Your task to perform on an android device: Clear the shopping cart on ebay. Add "usb-a to usb-b" to the cart on ebay, then select checkout. Image 0: 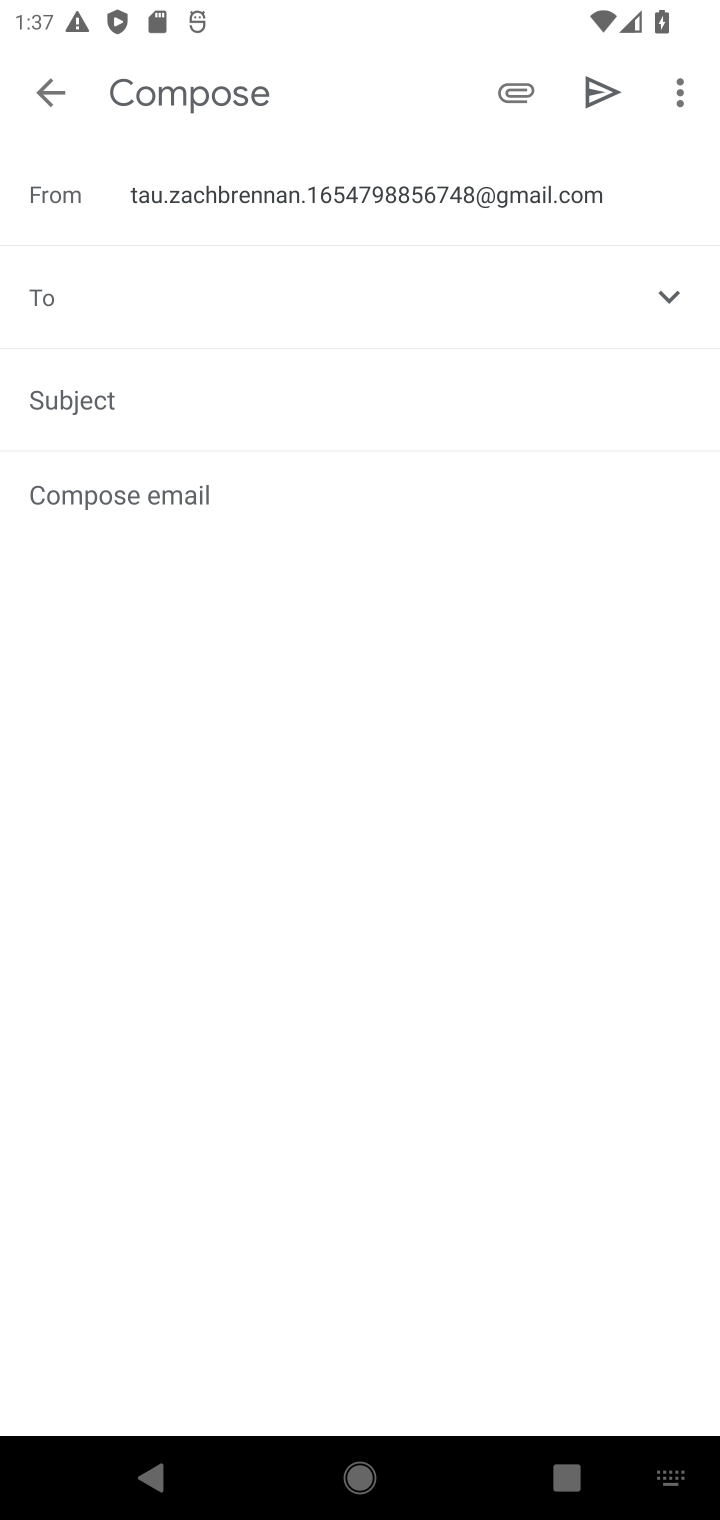
Step 0: press home button
Your task to perform on an android device: Clear the shopping cart on ebay. Add "usb-a to usb-b" to the cart on ebay, then select checkout. Image 1: 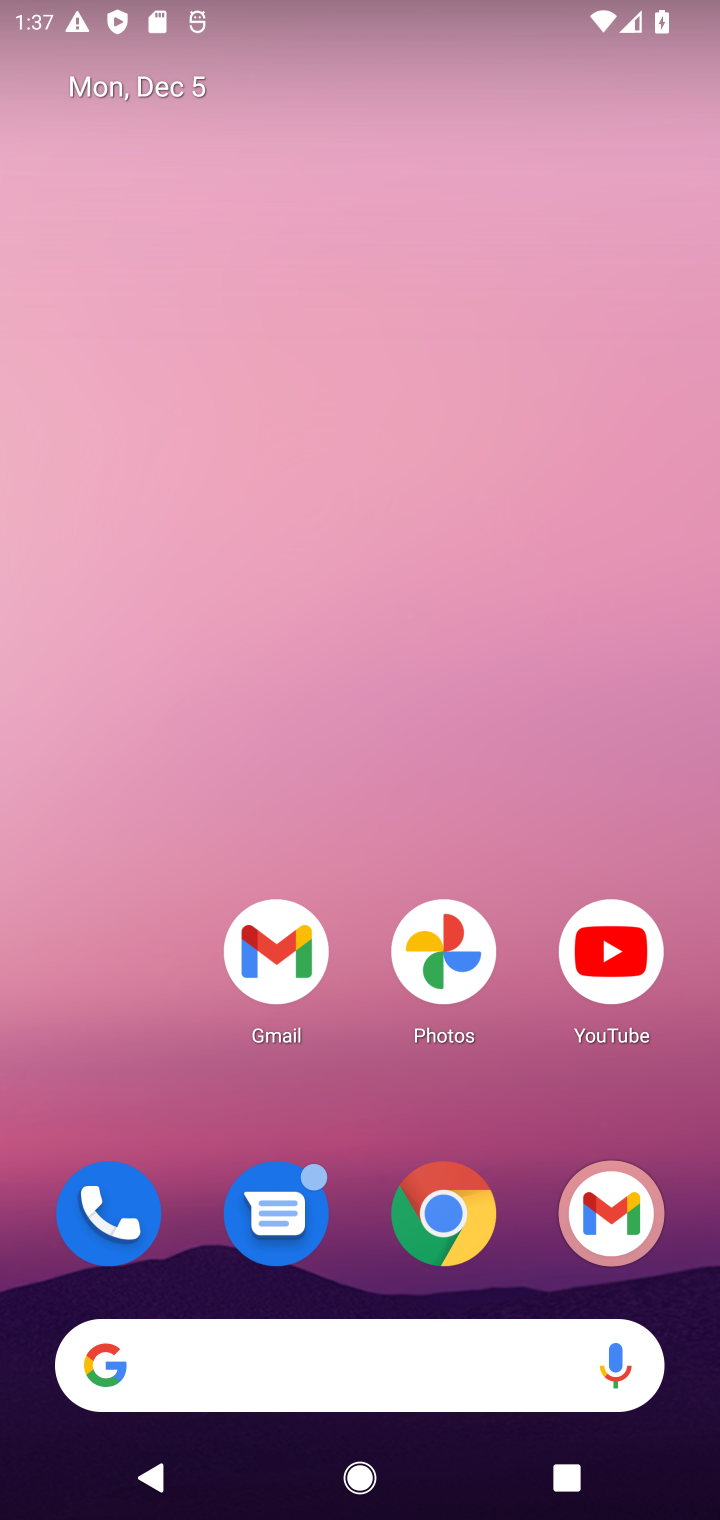
Step 1: click (450, 1211)
Your task to perform on an android device: Clear the shopping cart on ebay. Add "usb-a to usb-b" to the cart on ebay, then select checkout. Image 2: 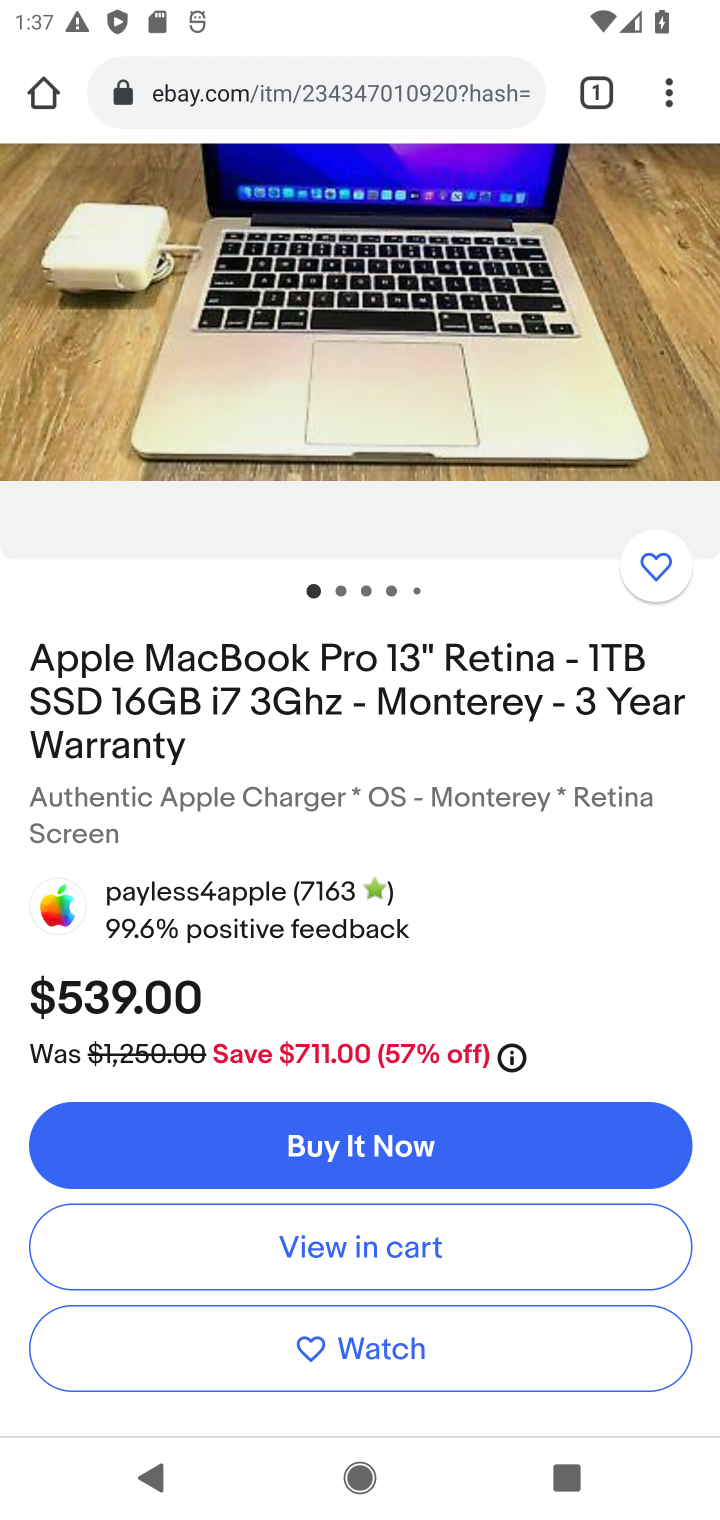
Step 2: drag from (683, 472) to (652, 1106)
Your task to perform on an android device: Clear the shopping cart on ebay. Add "usb-a to usb-b" to the cart on ebay, then select checkout. Image 3: 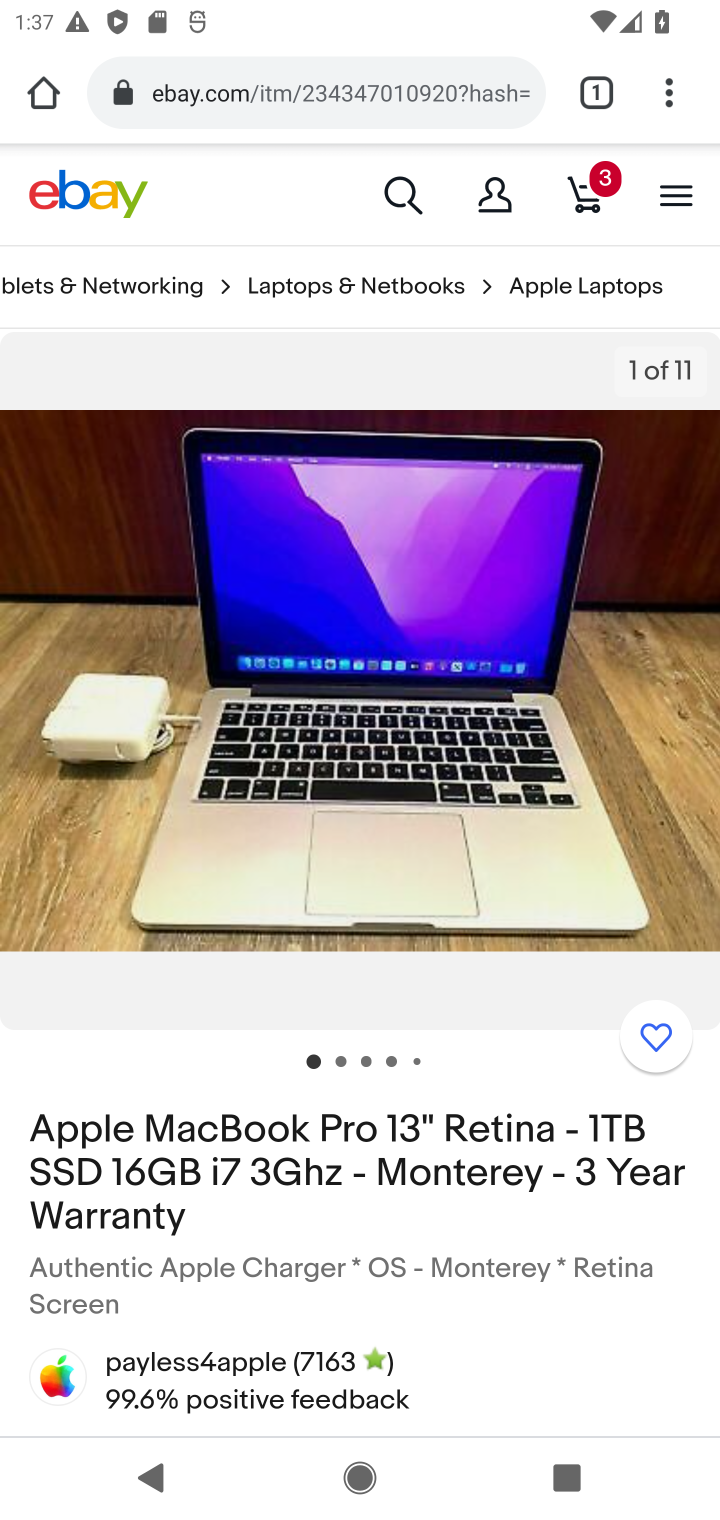
Step 3: click (582, 180)
Your task to perform on an android device: Clear the shopping cart on ebay. Add "usb-a to usb-b" to the cart on ebay, then select checkout. Image 4: 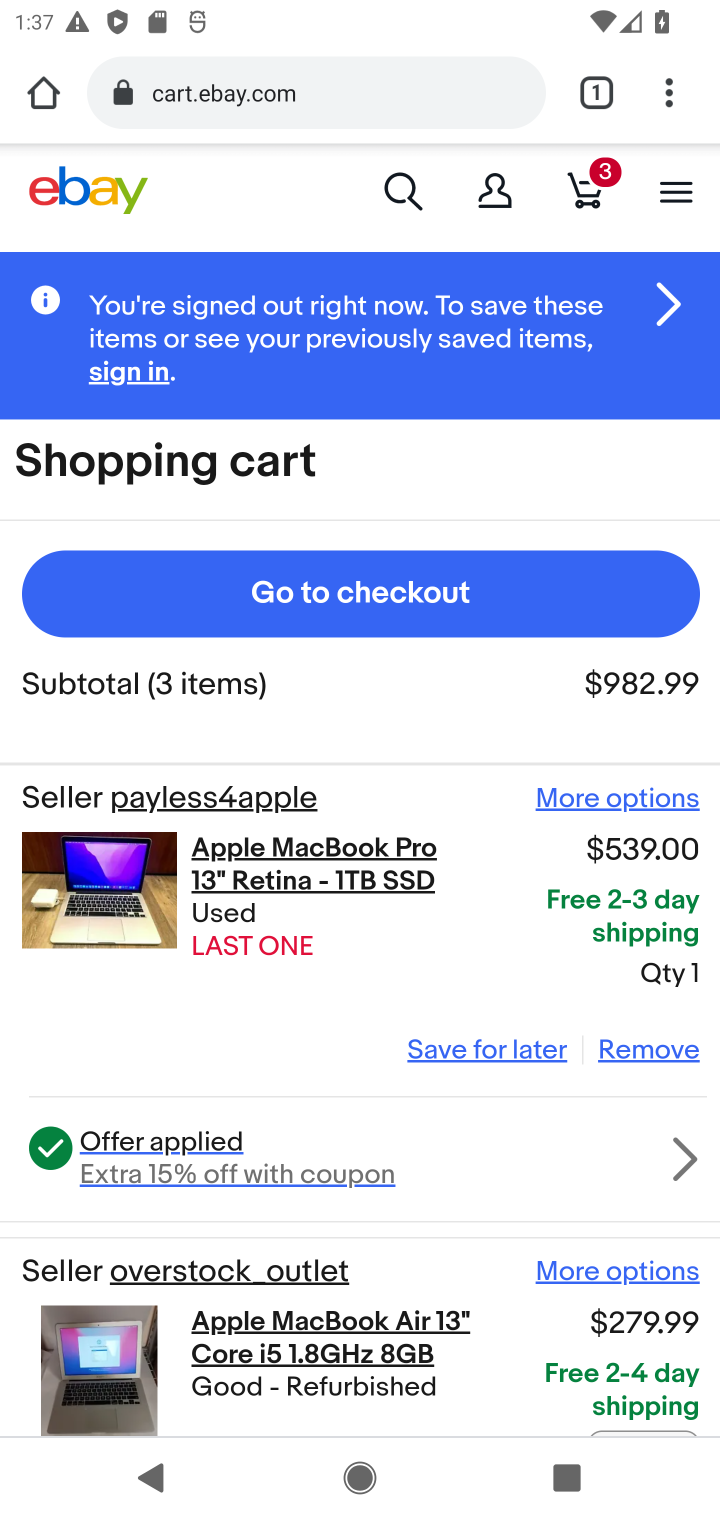
Step 4: click (637, 1053)
Your task to perform on an android device: Clear the shopping cart on ebay. Add "usb-a to usb-b" to the cart on ebay, then select checkout. Image 5: 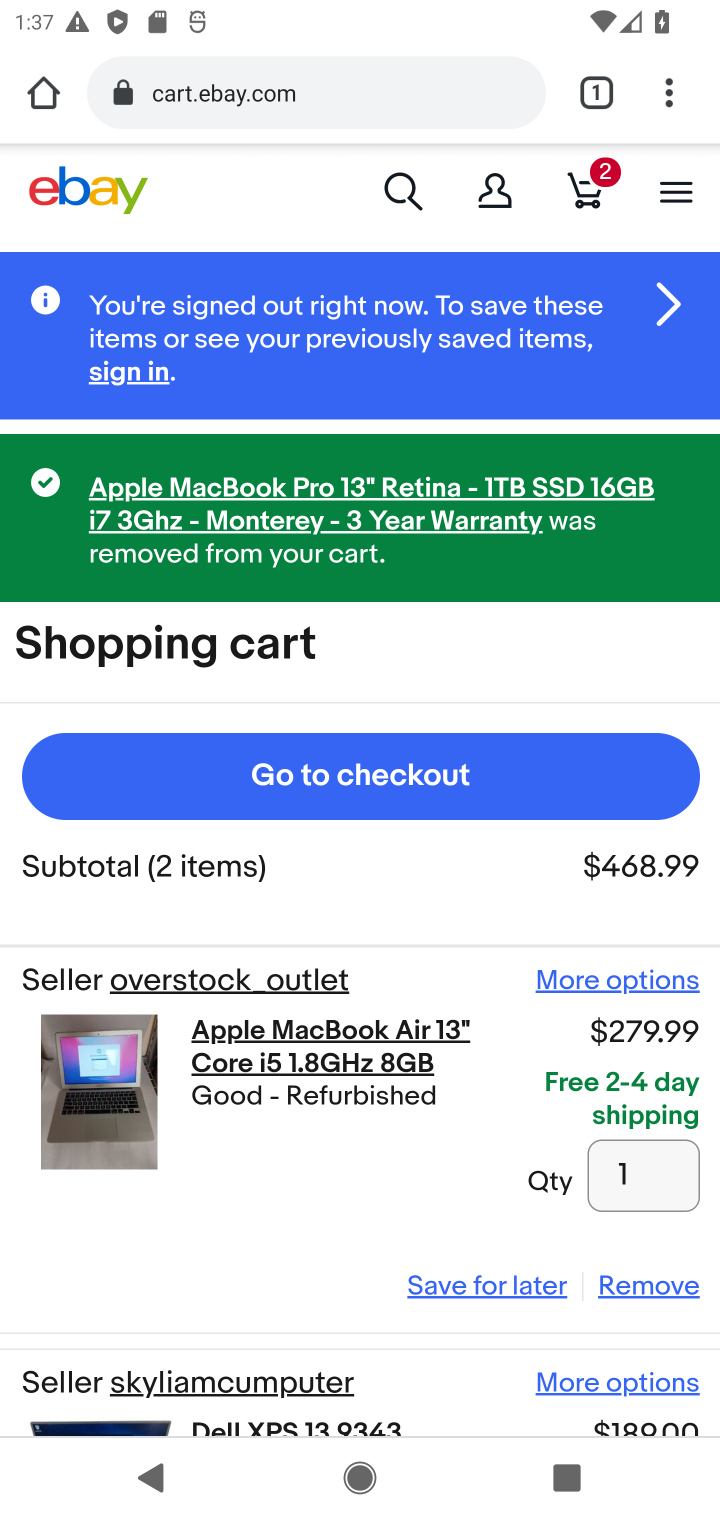
Step 5: click (624, 1293)
Your task to perform on an android device: Clear the shopping cart on ebay. Add "usb-a to usb-b" to the cart on ebay, then select checkout. Image 6: 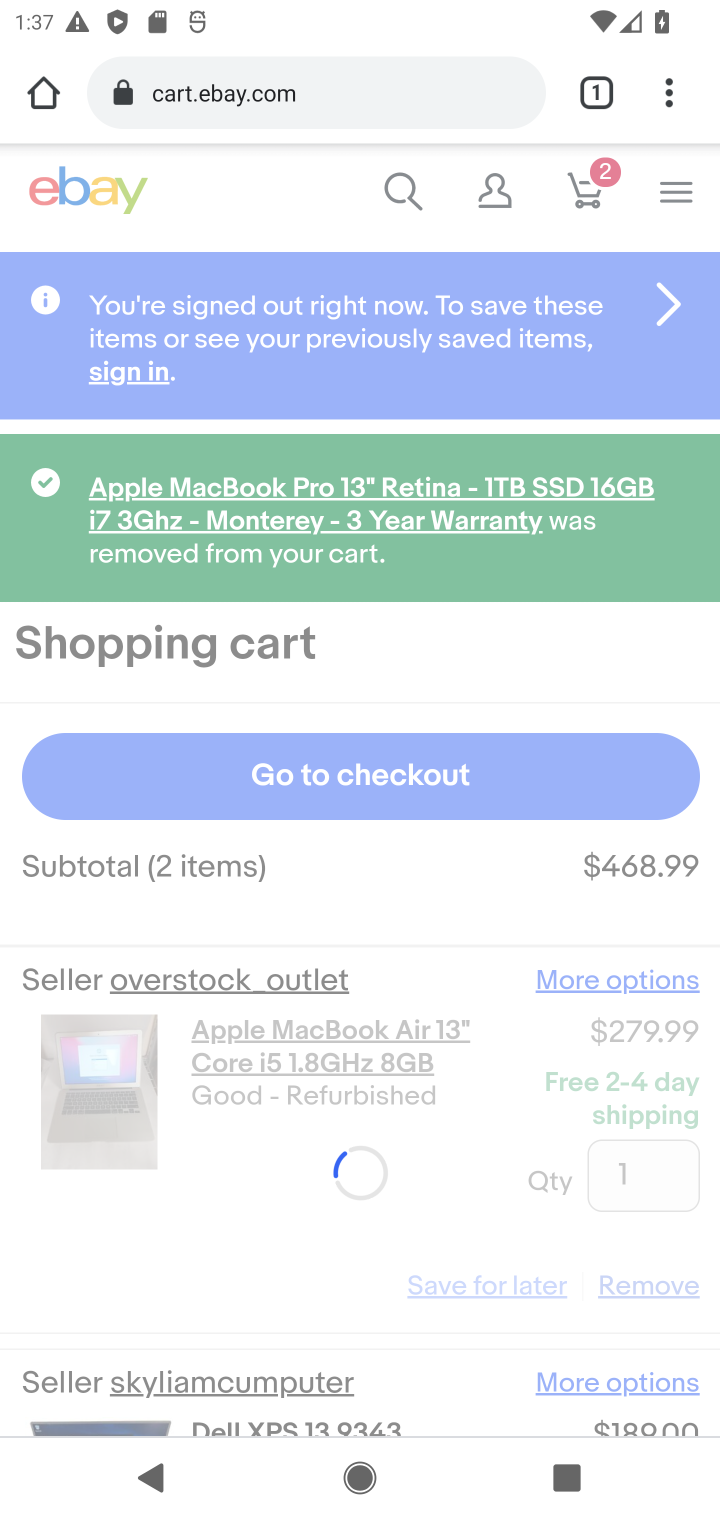
Step 6: drag from (449, 1194) to (459, 1004)
Your task to perform on an android device: Clear the shopping cart on ebay. Add "usb-a to usb-b" to the cart on ebay, then select checkout. Image 7: 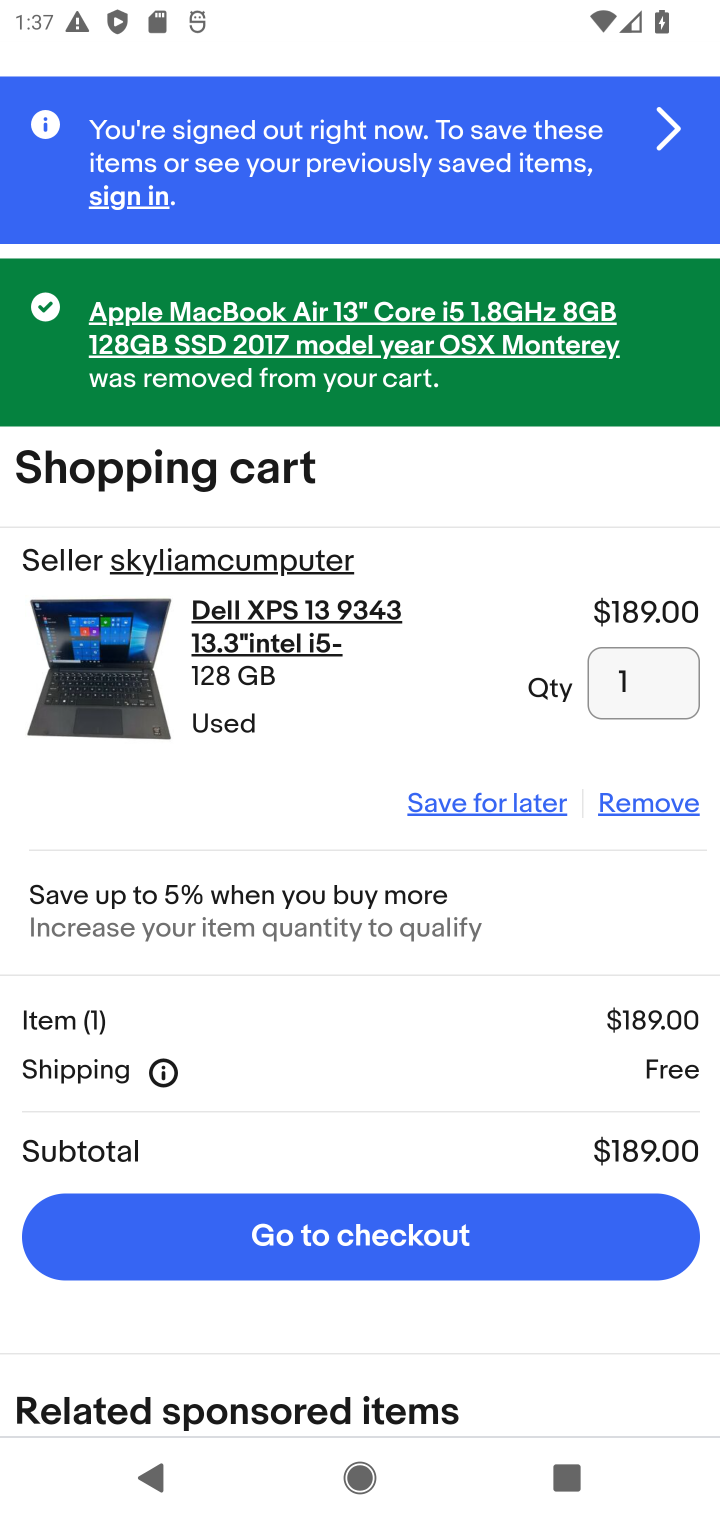
Step 7: click (624, 808)
Your task to perform on an android device: Clear the shopping cart on ebay. Add "usb-a to usb-b" to the cart on ebay, then select checkout. Image 8: 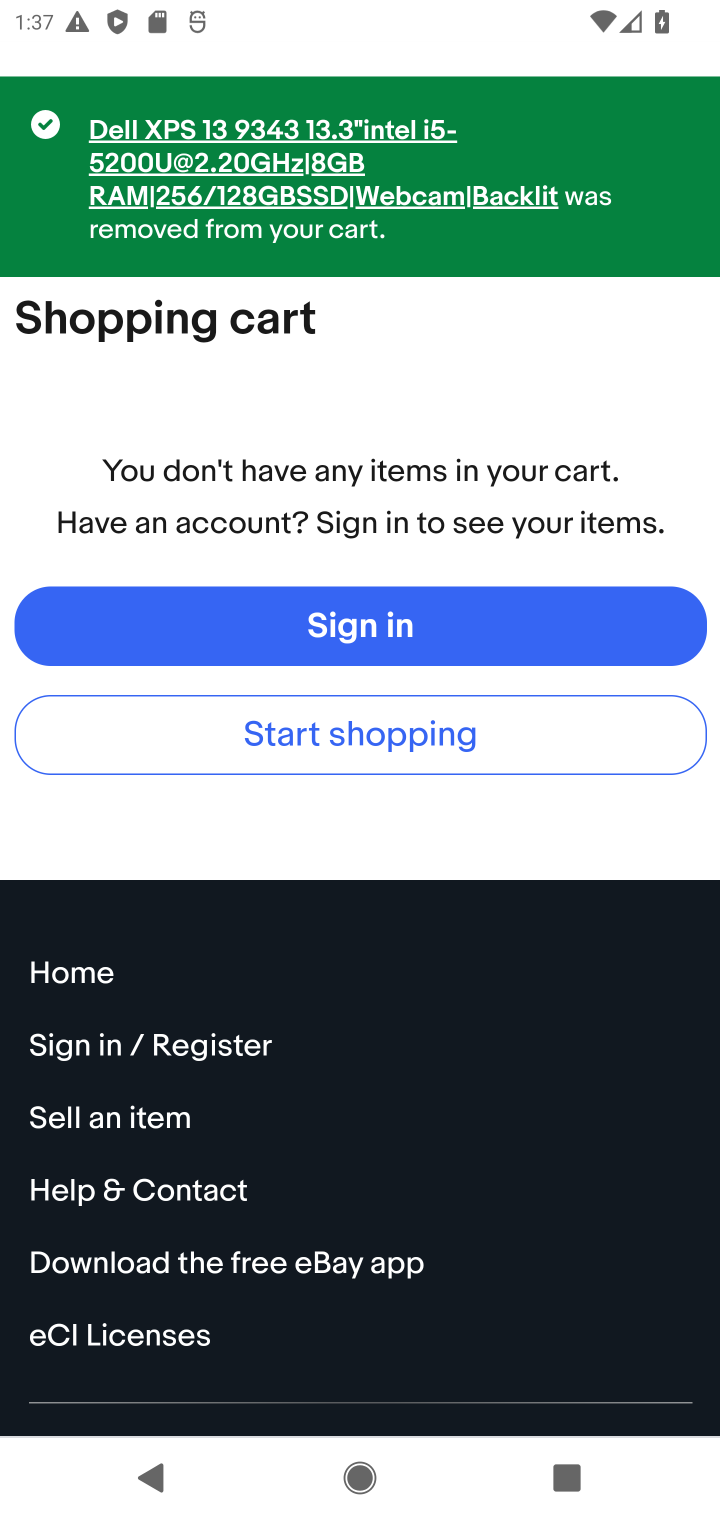
Step 8: drag from (604, 387) to (599, 639)
Your task to perform on an android device: Clear the shopping cart on ebay. Add "usb-a to usb-b" to the cart on ebay, then select checkout. Image 9: 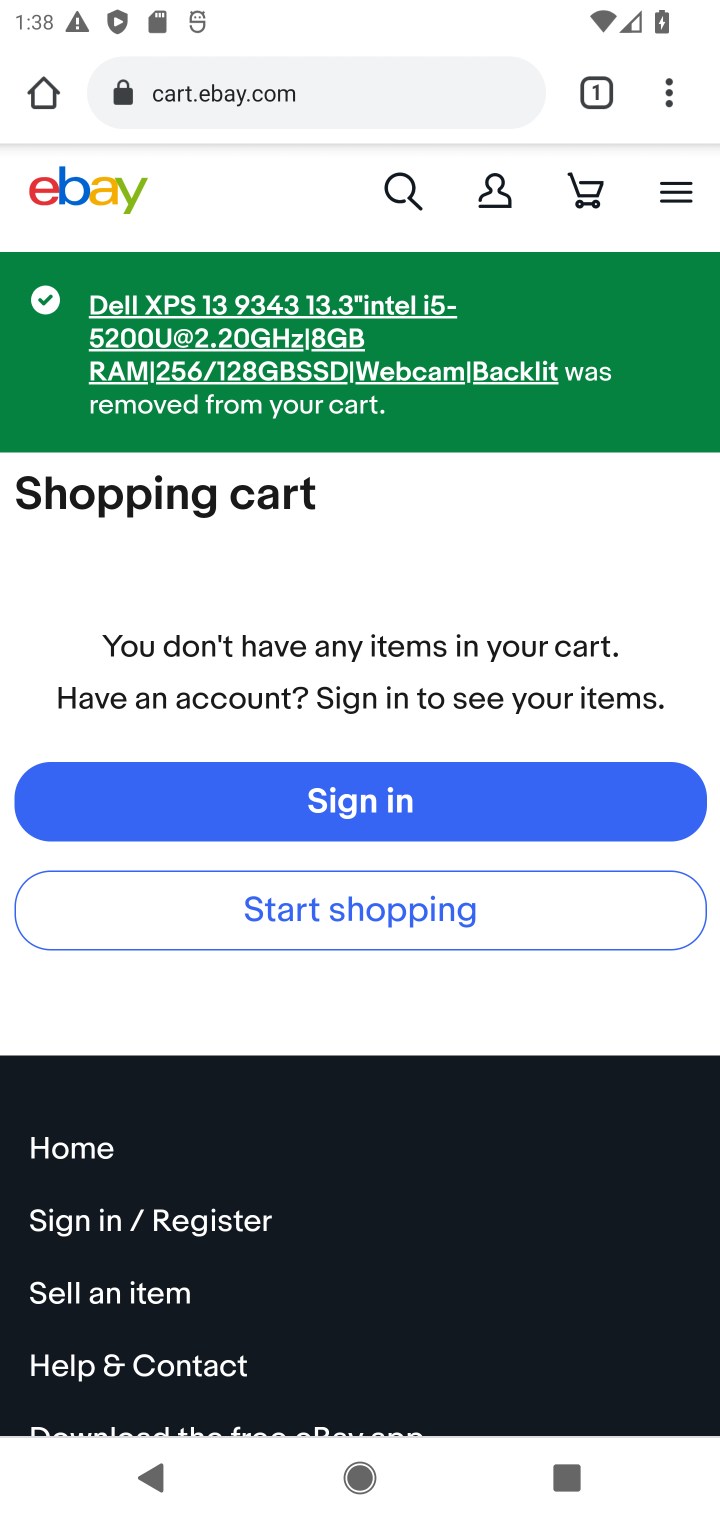
Step 9: click (407, 193)
Your task to perform on an android device: Clear the shopping cart on ebay. Add "usb-a to usb-b" to the cart on ebay, then select checkout. Image 10: 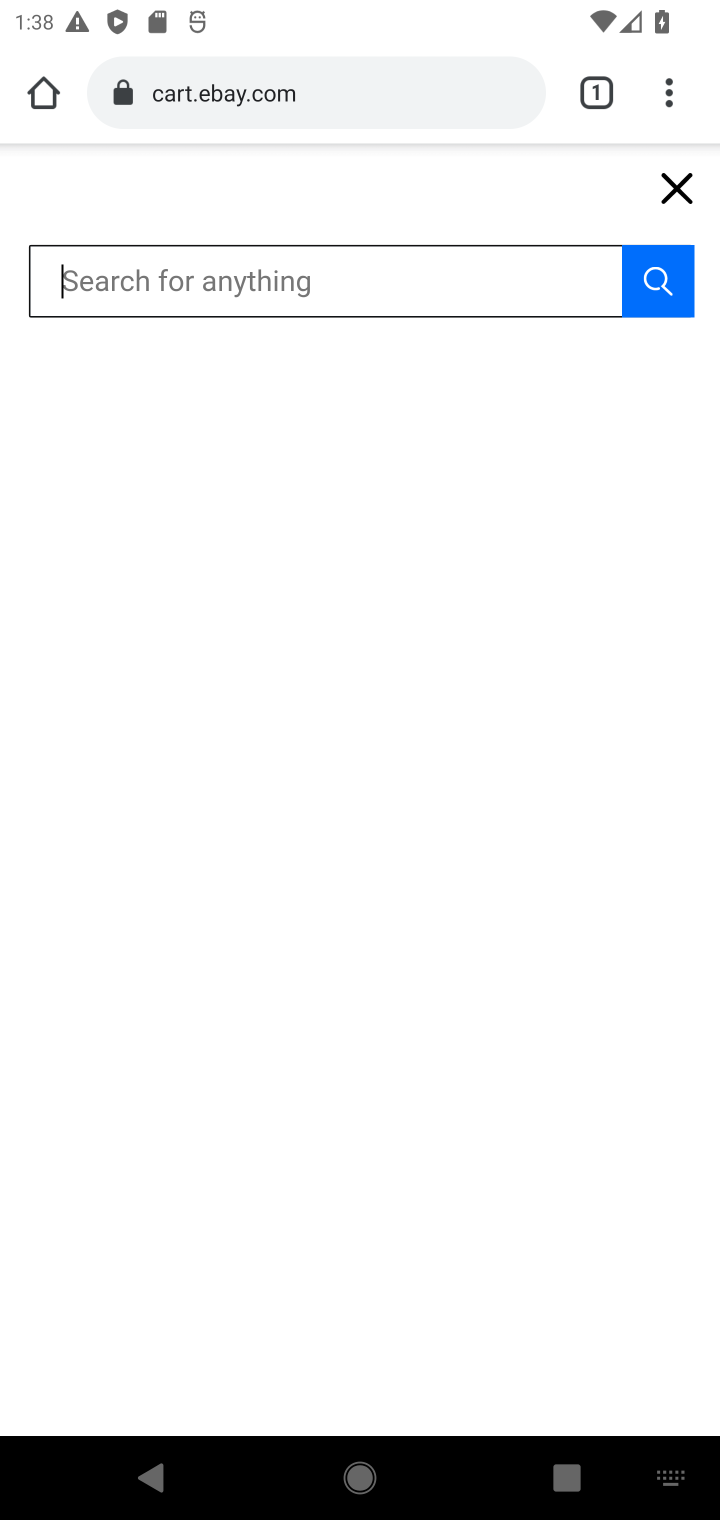
Step 10: type "usb-a to usb-b"
Your task to perform on an android device: Clear the shopping cart on ebay. Add "usb-a to usb-b" to the cart on ebay, then select checkout. Image 11: 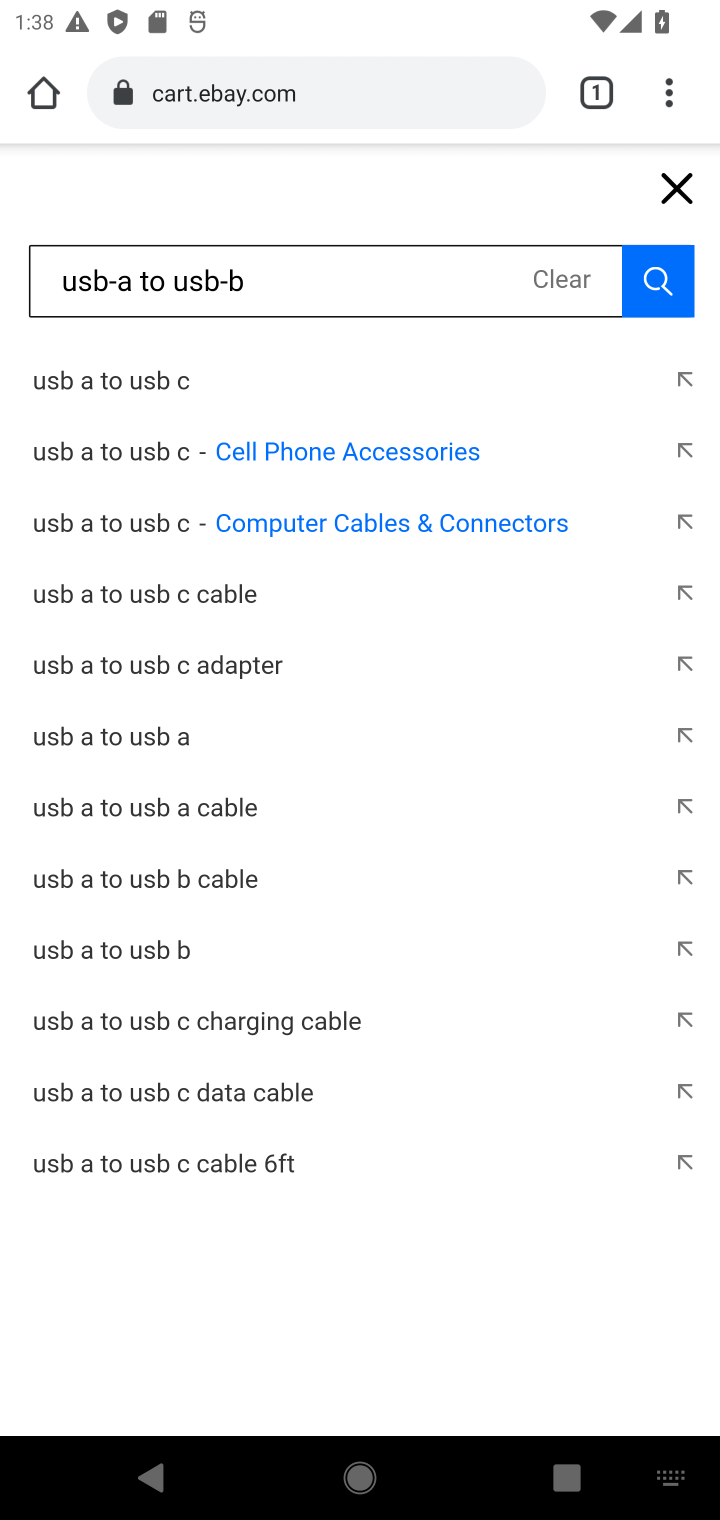
Step 11: click (658, 285)
Your task to perform on an android device: Clear the shopping cart on ebay. Add "usb-a to usb-b" to the cart on ebay, then select checkout. Image 12: 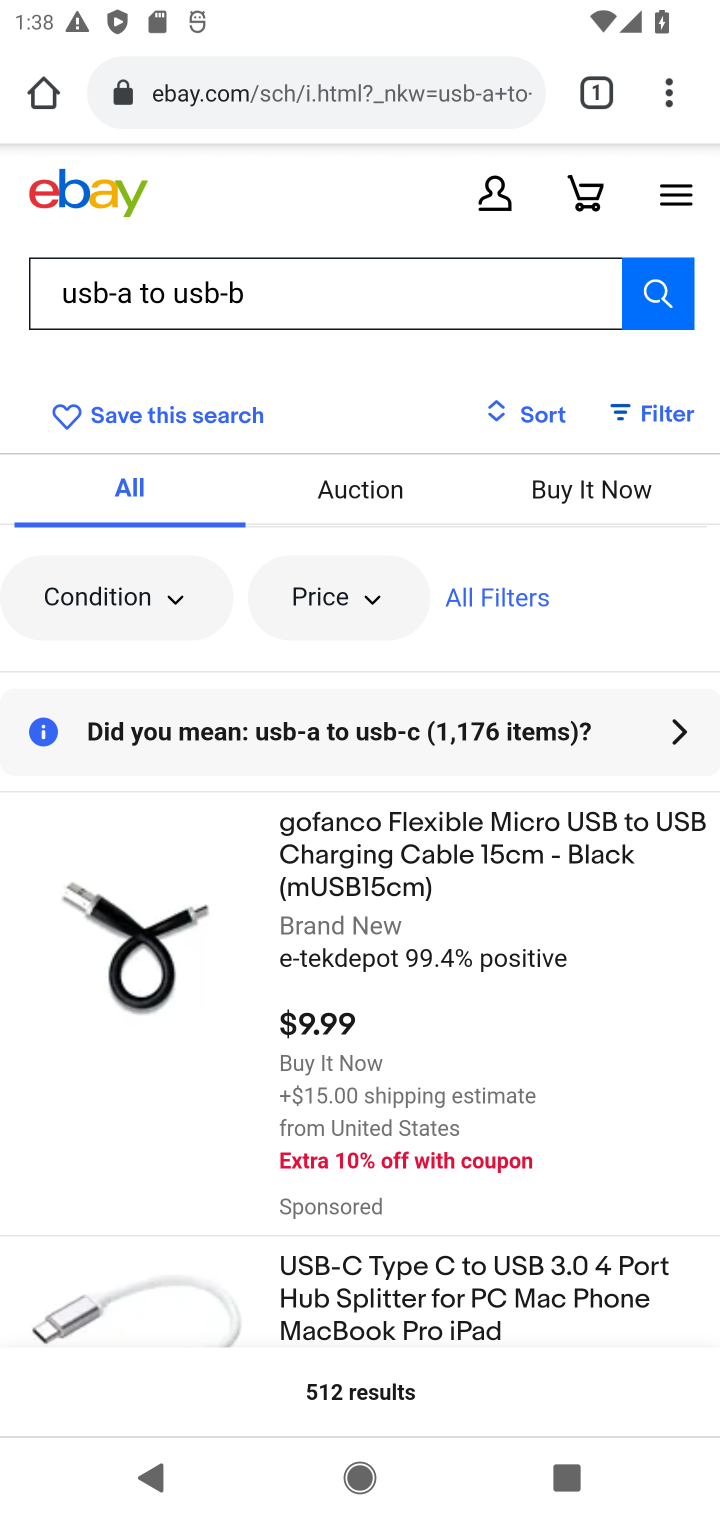
Step 12: drag from (413, 970) to (419, 683)
Your task to perform on an android device: Clear the shopping cart on ebay. Add "usb-a to usb-b" to the cart on ebay, then select checkout. Image 13: 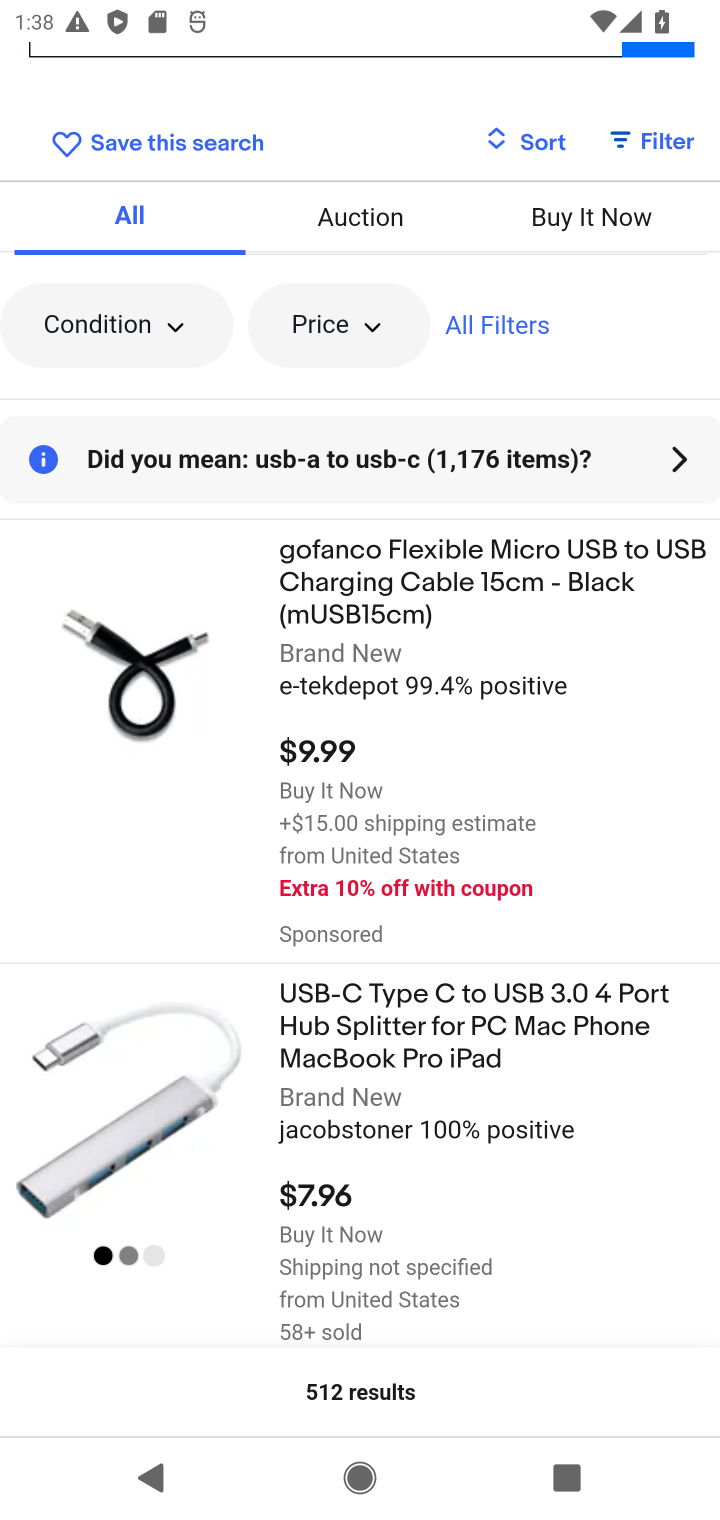
Step 13: drag from (439, 1043) to (475, 555)
Your task to perform on an android device: Clear the shopping cart on ebay. Add "usb-a to usb-b" to the cart on ebay, then select checkout. Image 14: 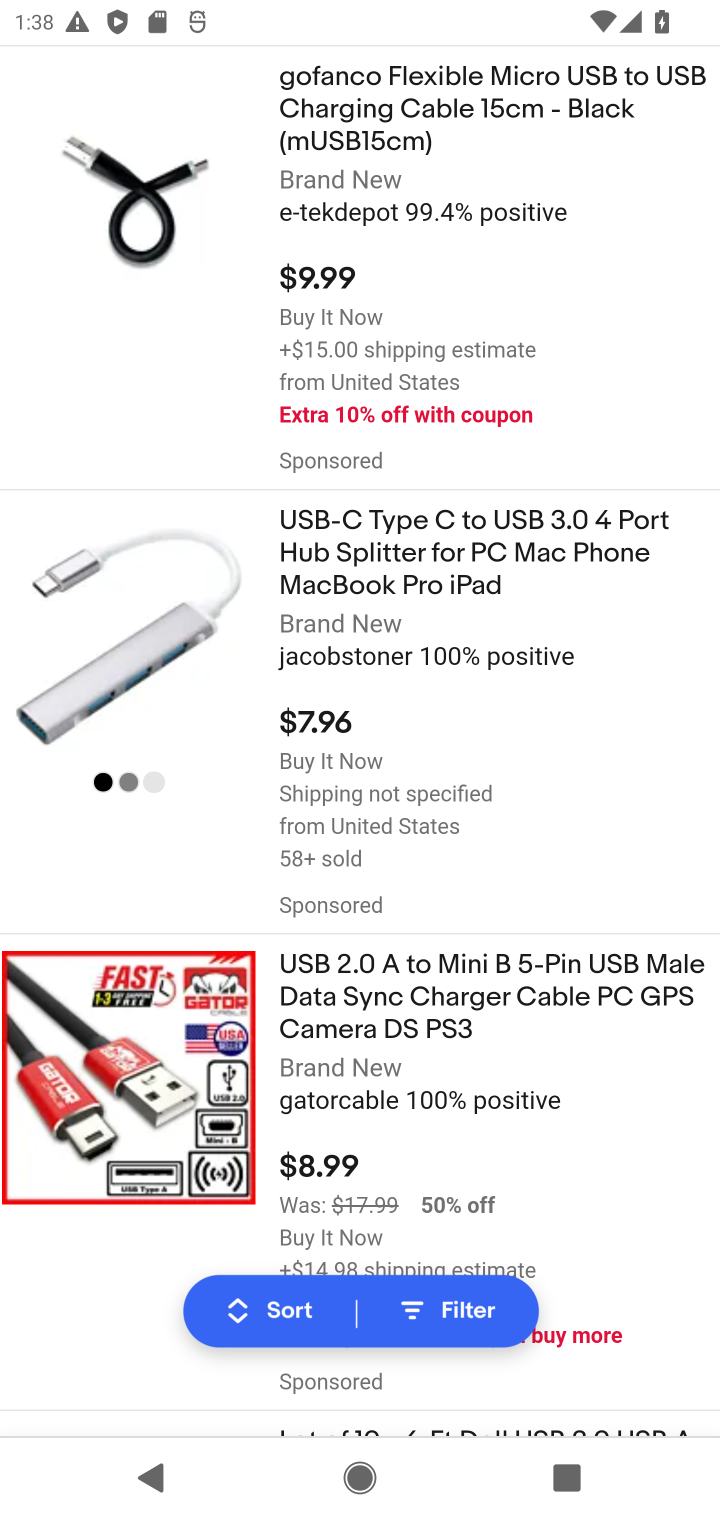
Step 14: drag from (438, 1126) to (439, 780)
Your task to perform on an android device: Clear the shopping cart on ebay. Add "usb-a to usb-b" to the cart on ebay, then select checkout. Image 15: 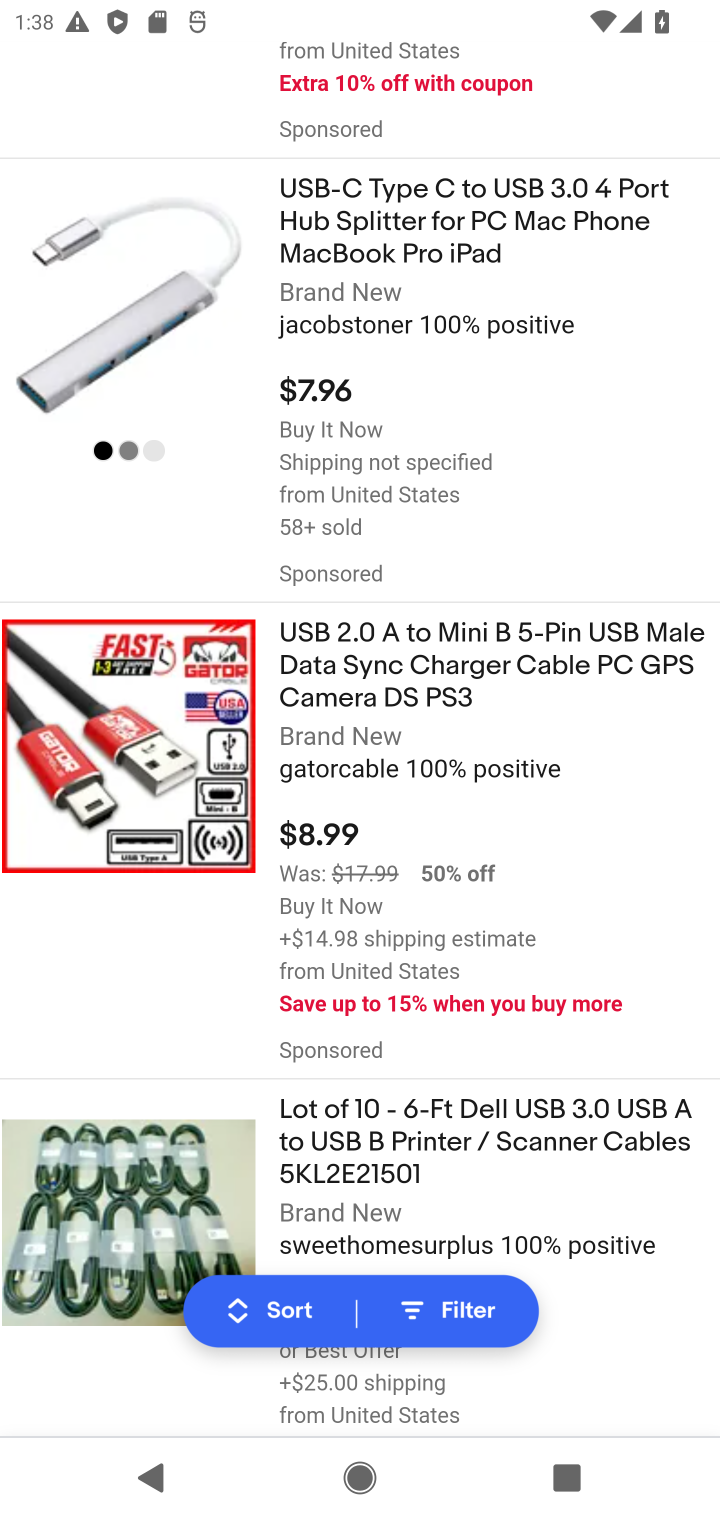
Step 15: click (498, 677)
Your task to perform on an android device: Clear the shopping cart on ebay. Add "usb-a to usb-b" to the cart on ebay, then select checkout. Image 16: 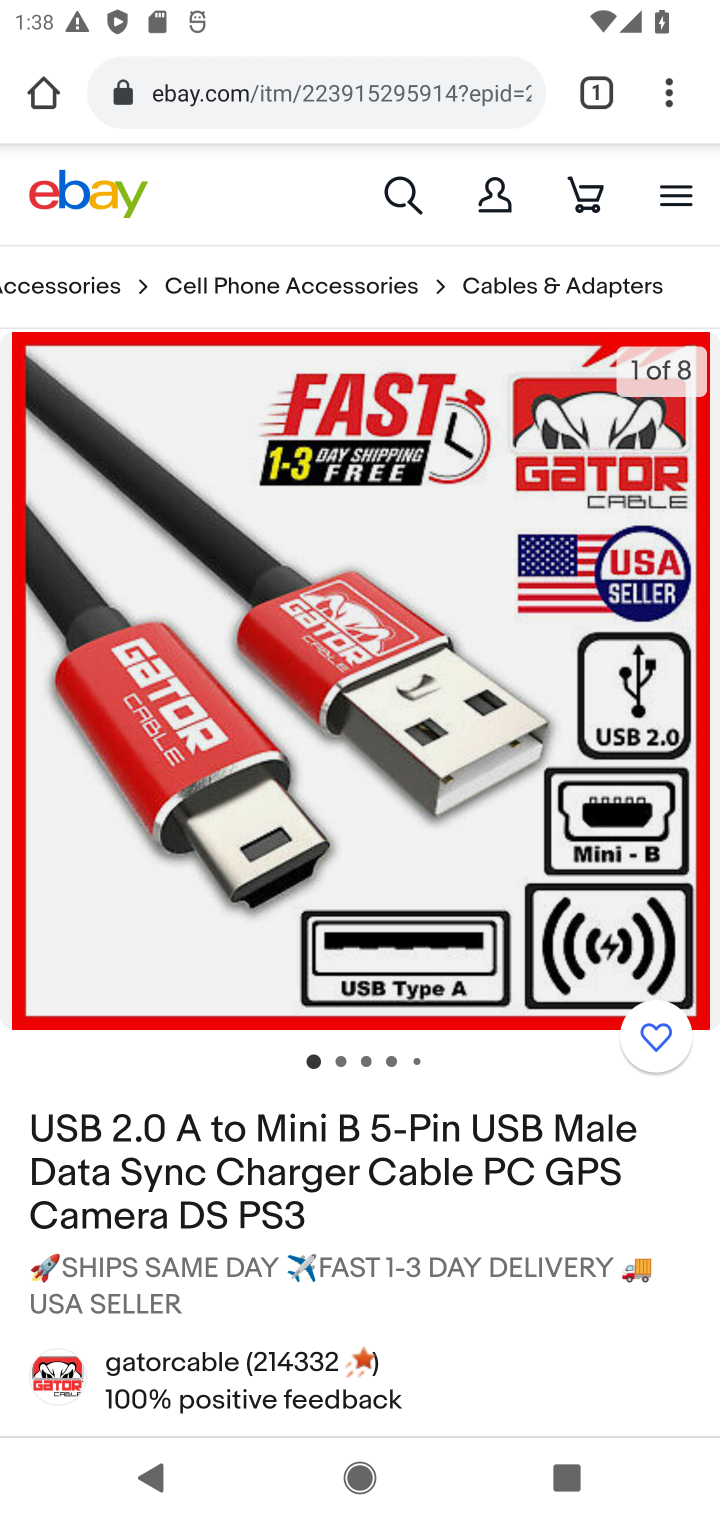
Step 16: drag from (410, 1081) to (462, 527)
Your task to perform on an android device: Clear the shopping cart on ebay. Add "usb-a to usb-b" to the cart on ebay, then select checkout. Image 17: 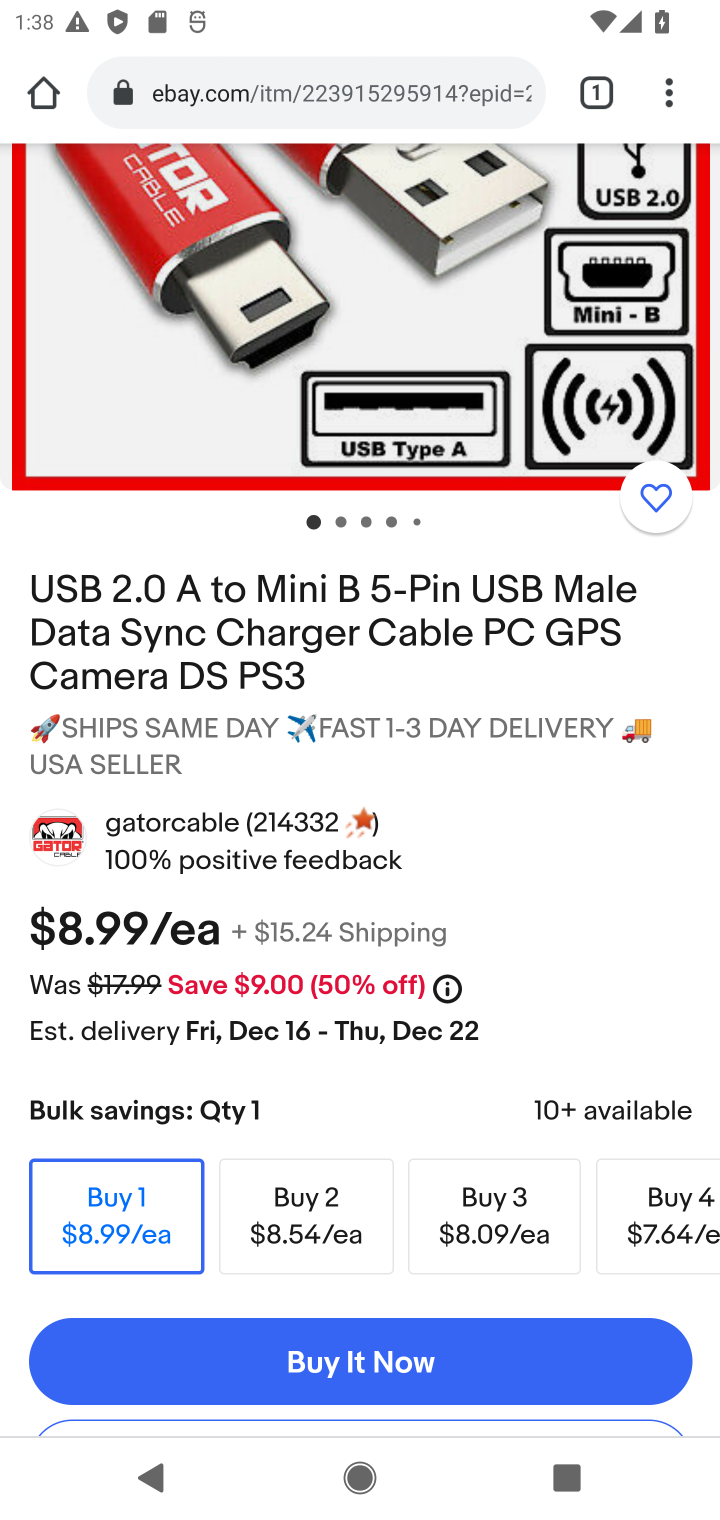
Step 17: drag from (404, 1041) to (404, 577)
Your task to perform on an android device: Clear the shopping cart on ebay. Add "usb-a to usb-b" to the cart on ebay, then select checkout. Image 18: 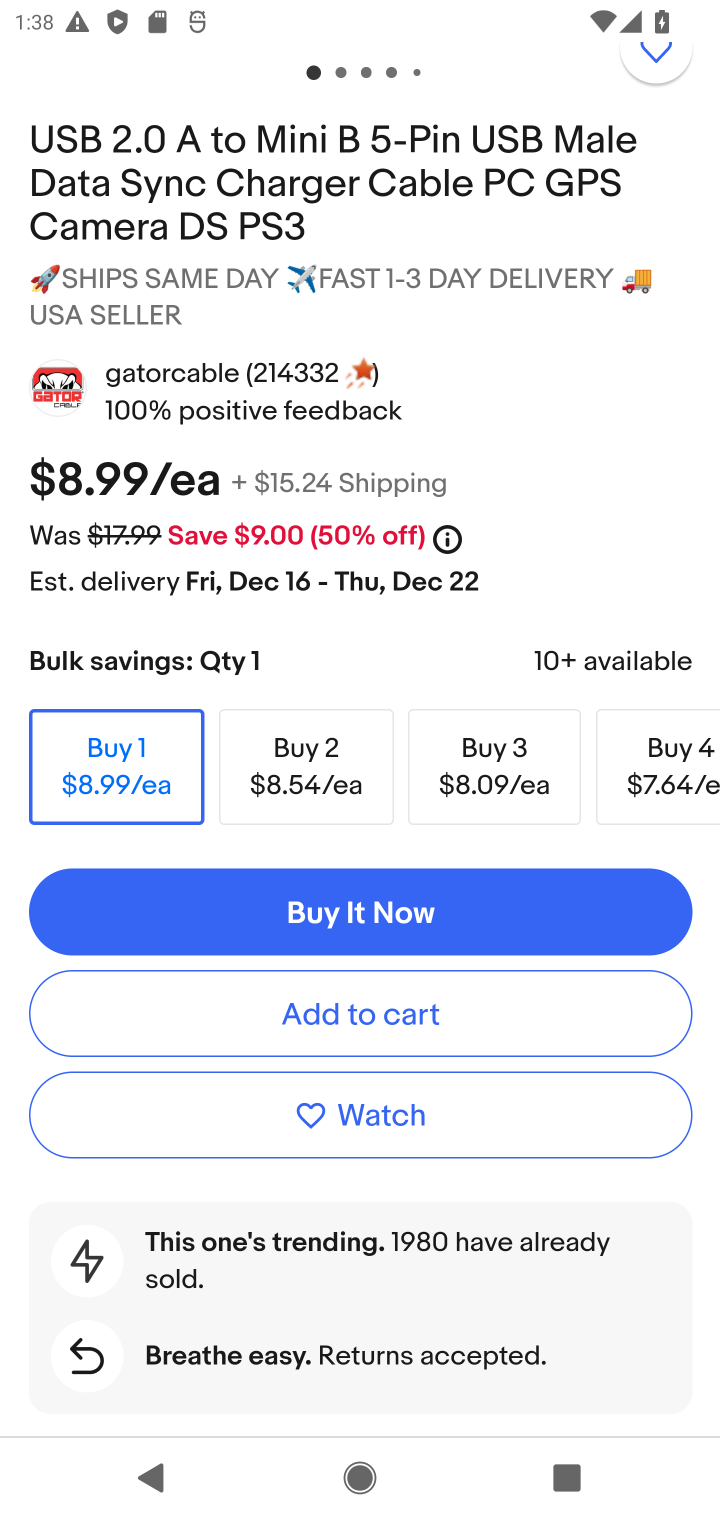
Step 18: click (370, 1027)
Your task to perform on an android device: Clear the shopping cart on ebay. Add "usb-a to usb-b" to the cart on ebay, then select checkout. Image 19: 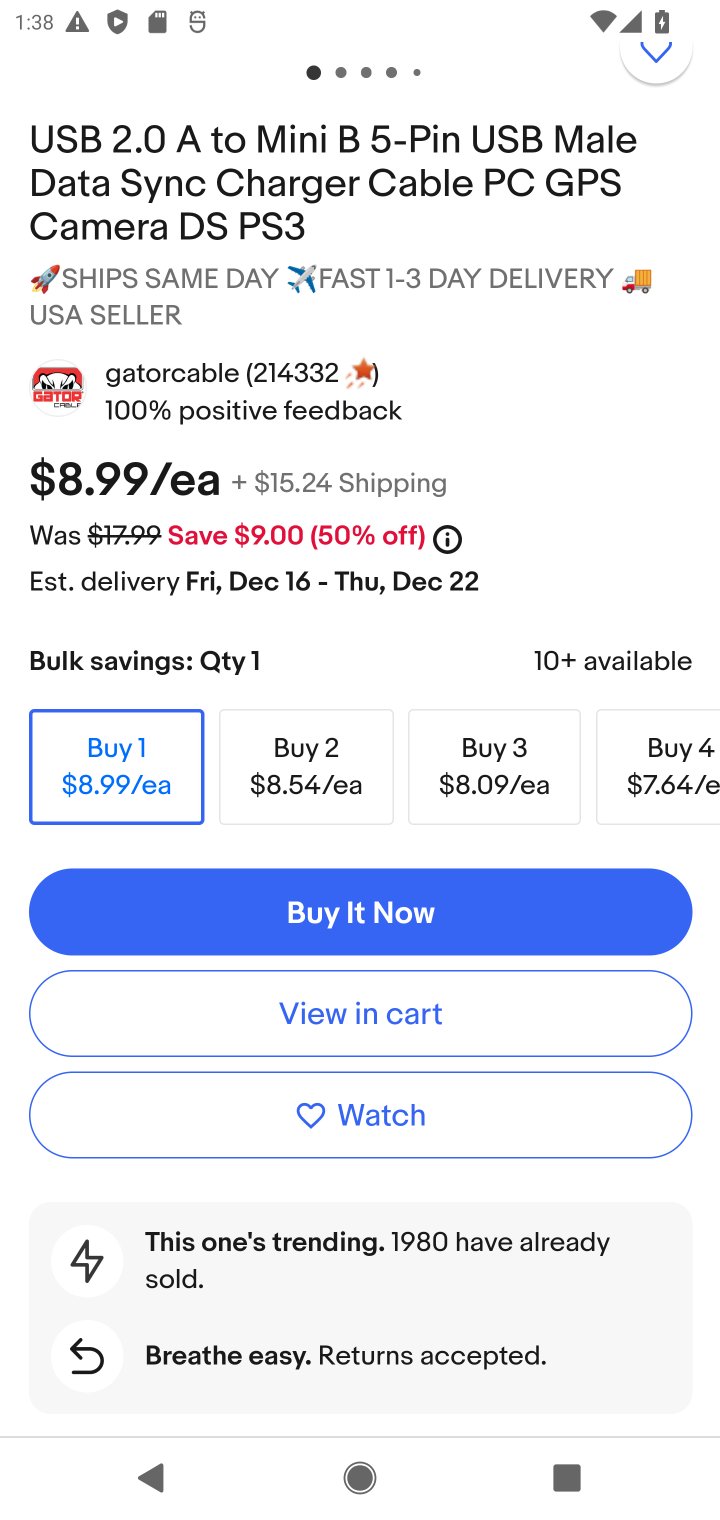
Step 19: click (370, 1027)
Your task to perform on an android device: Clear the shopping cart on ebay. Add "usb-a to usb-b" to the cart on ebay, then select checkout. Image 20: 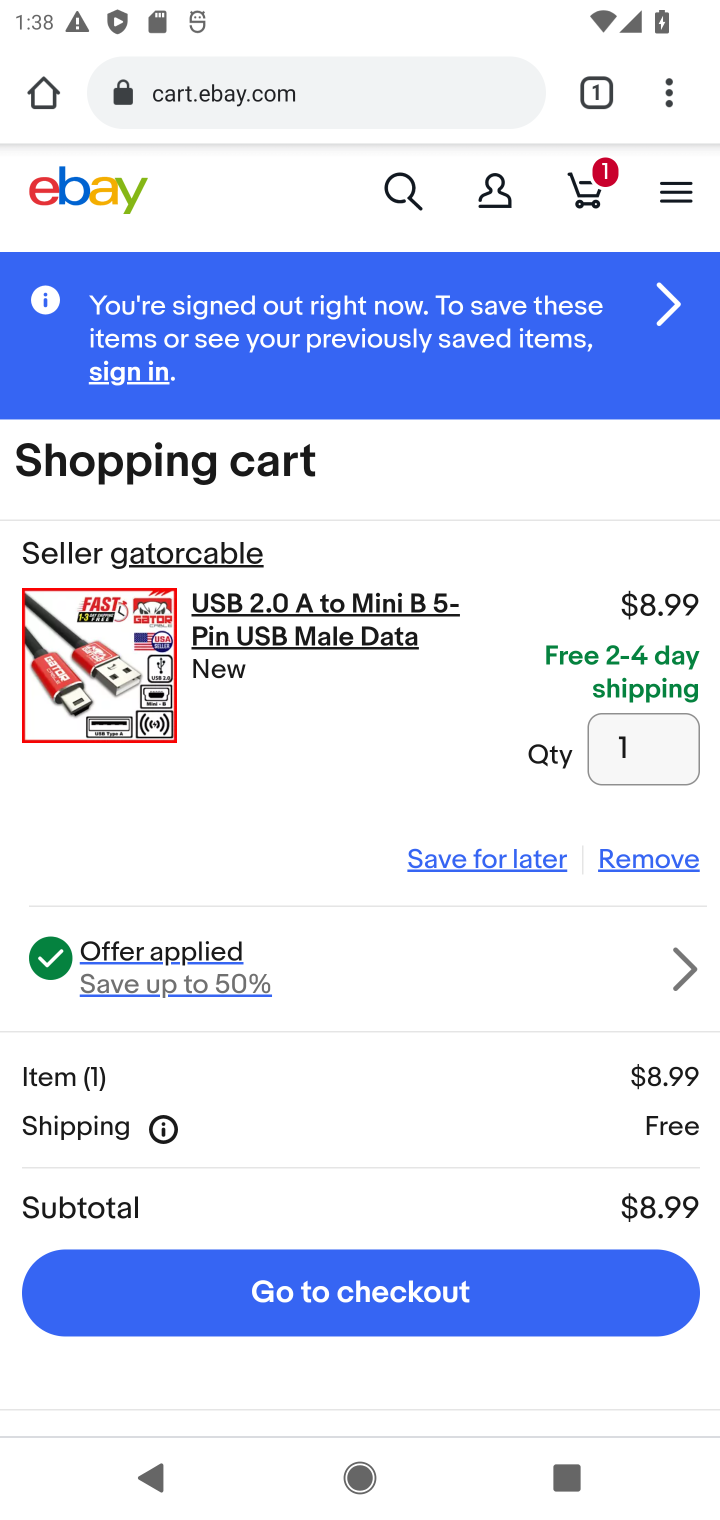
Step 20: click (378, 1288)
Your task to perform on an android device: Clear the shopping cart on ebay. Add "usb-a to usb-b" to the cart on ebay, then select checkout. Image 21: 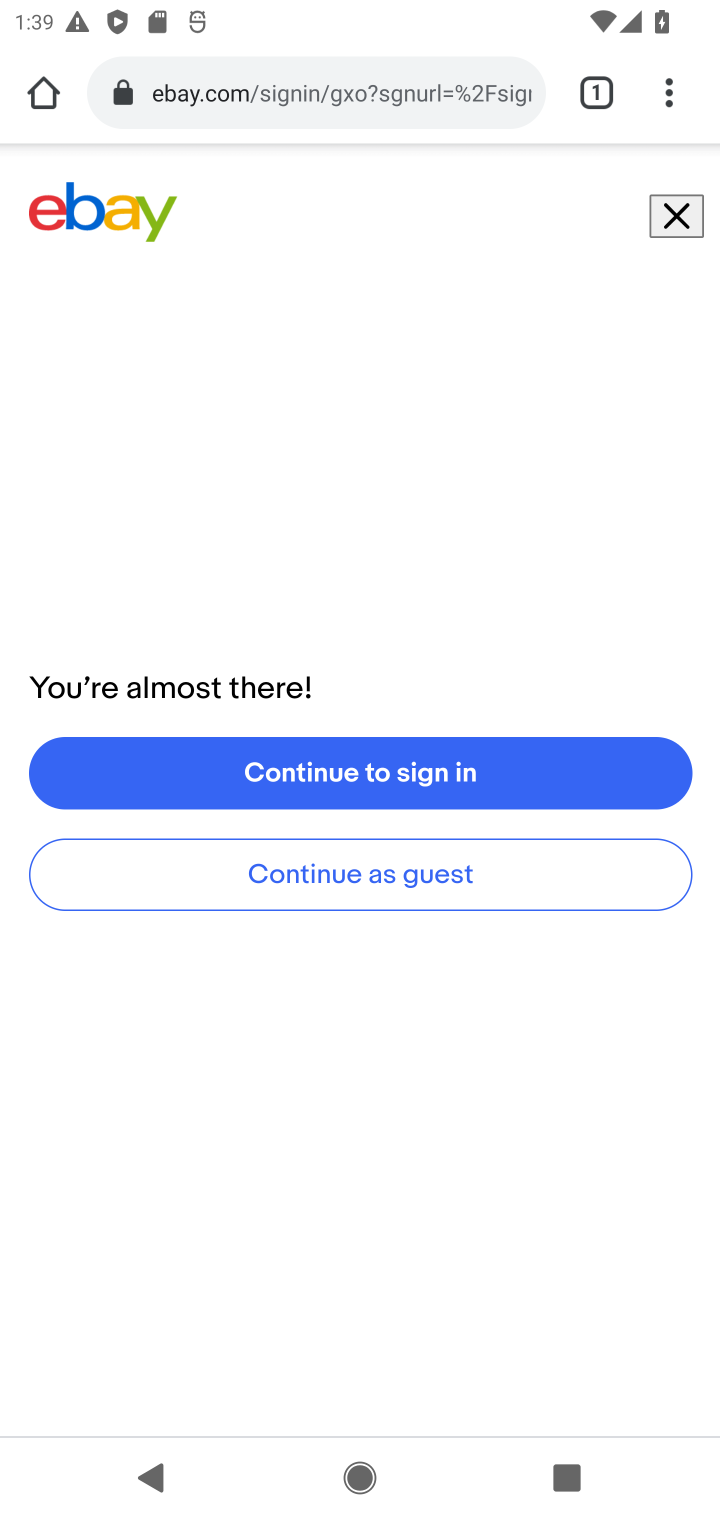
Step 21: task complete